Your task to perform on an android device: Go to sound settings Image 0: 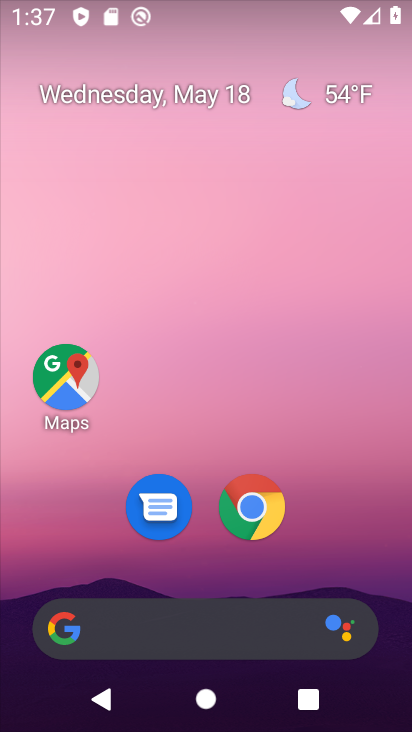
Step 0: drag from (394, 625) to (324, 264)
Your task to perform on an android device: Go to sound settings Image 1: 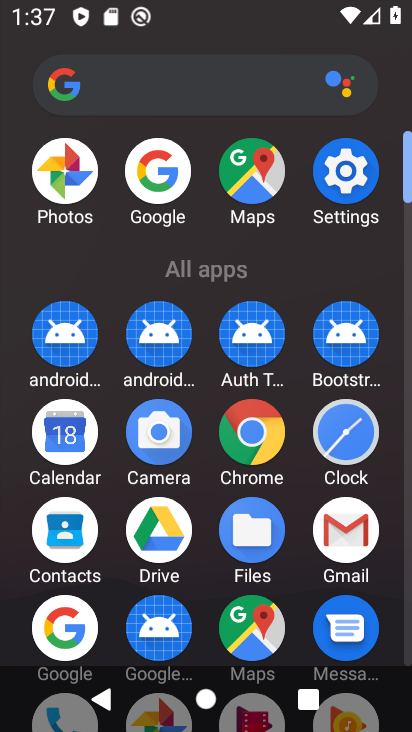
Step 1: click (346, 181)
Your task to perform on an android device: Go to sound settings Image 2: 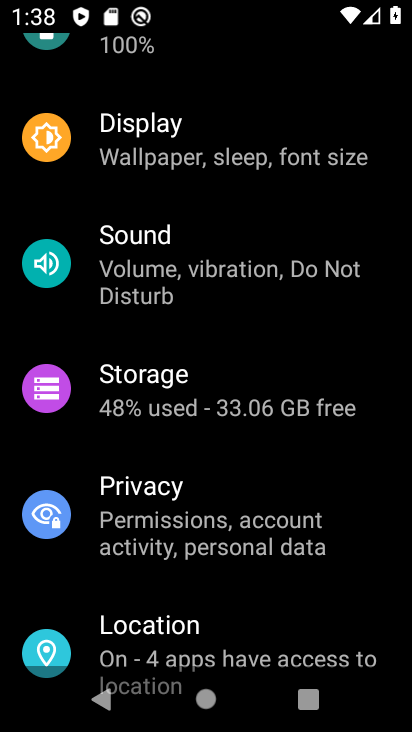
Step 2: click (165, 255)
Your task to perform on an android device: Go to sound settings Image 3: 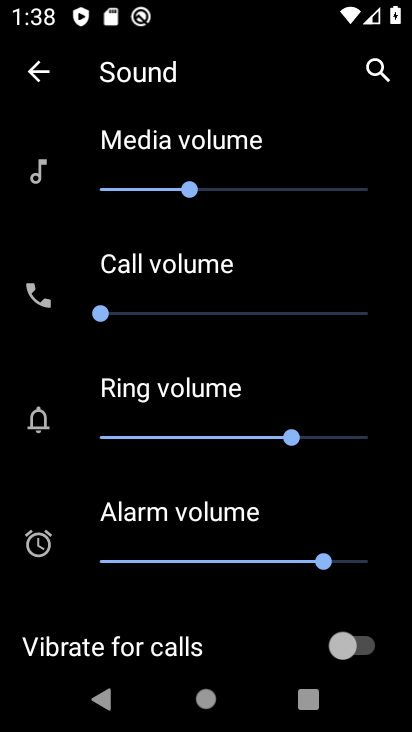
Step 3: task complete